Your task to perform on an android device: Open the web browser Image 0: 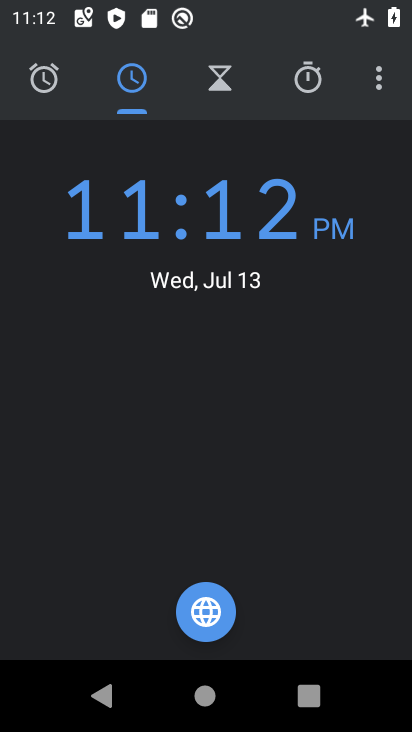
Step 0: press home button
Your task to perform on an android device: Open the web browser Image 1: 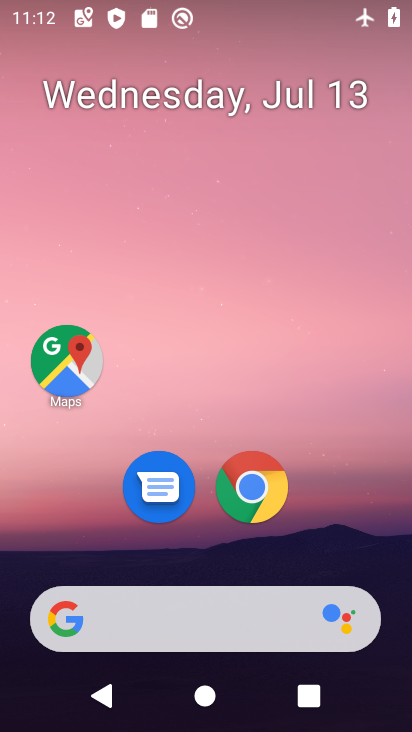
Step 1: click (206, 611)
Your task to perform on an android device: Open the web browser Image 2: 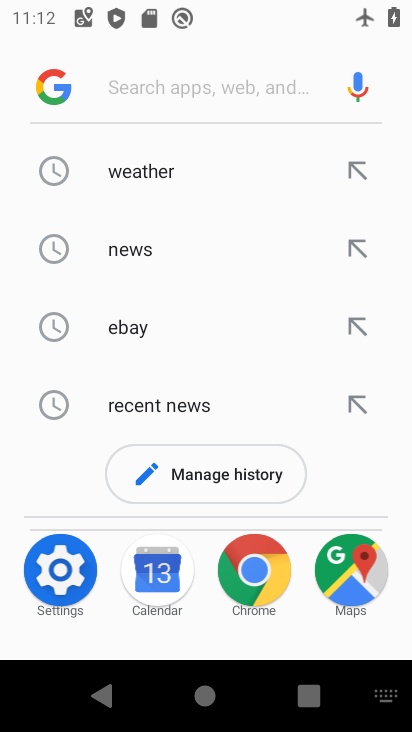
Step 2: task complete